Your task to perform on an android device: show emergency info Image 0: 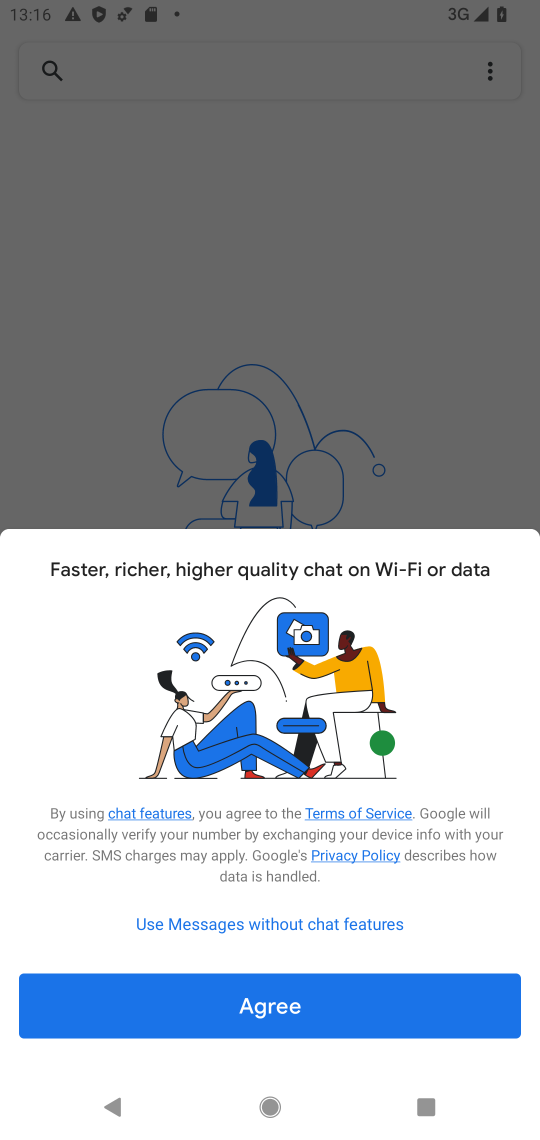
Step 0: drag from (282, 790) to (328, 6)
Your task to perform on an android device: show emergency info Image 1: 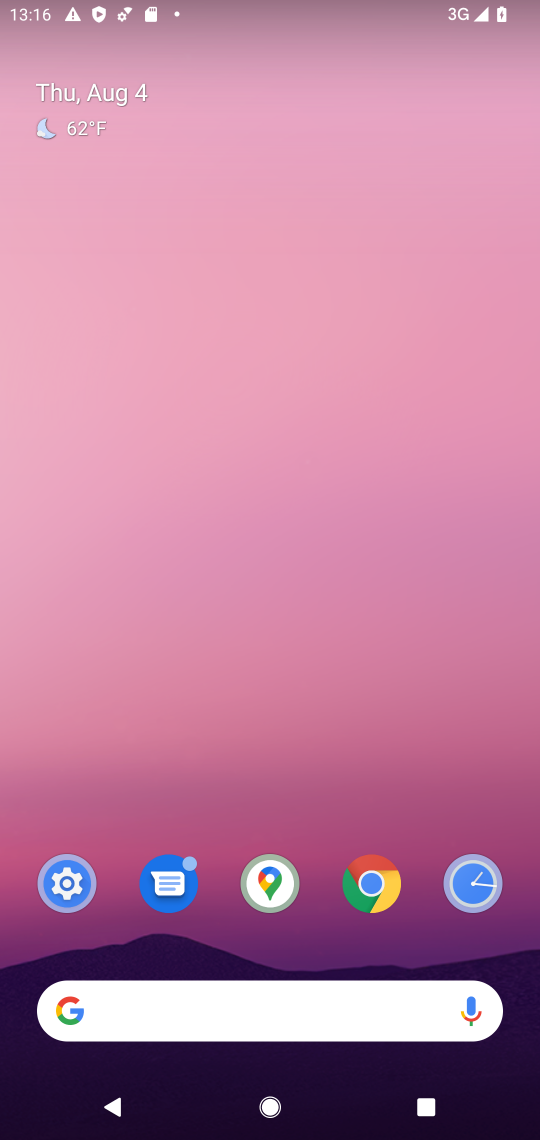
Step 1: click (74, 892)
Your task to perform on an android device: show emergency info Image 2: 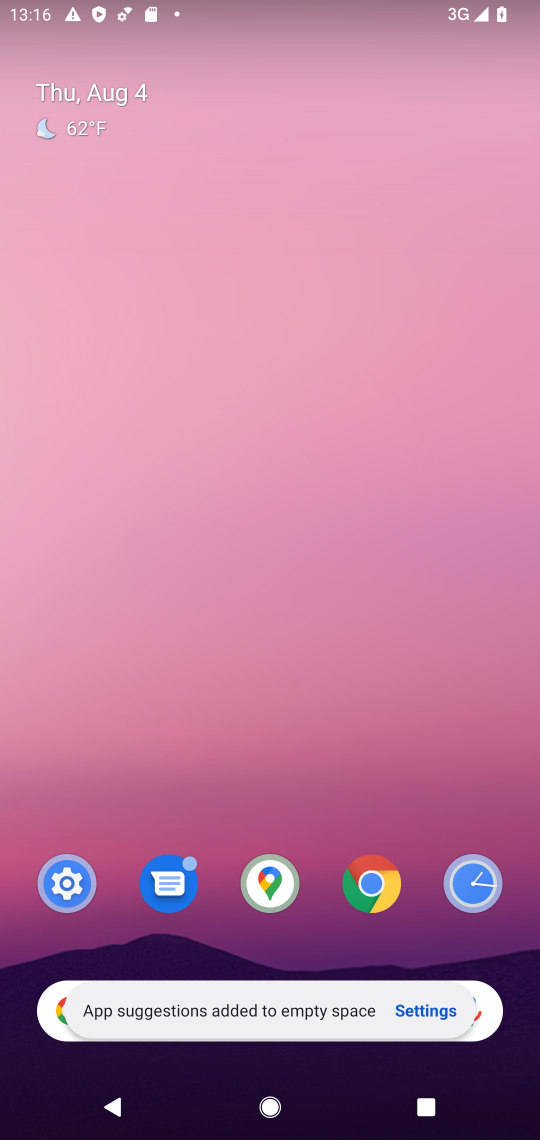
Step 2: click (49, 885)
Your task to perform on an android device: show emergency info Image 3: 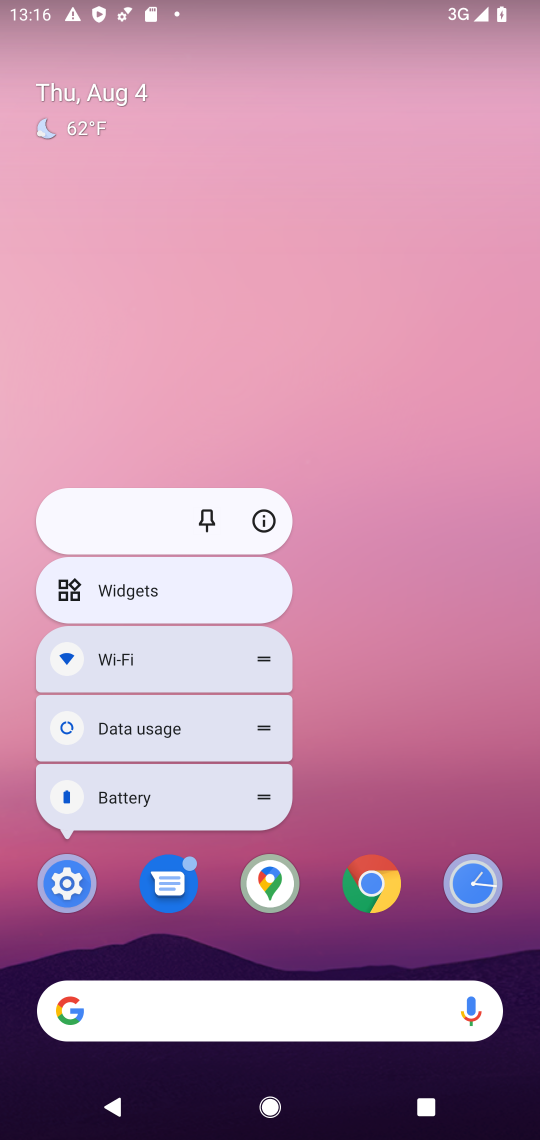
Step 3: click (257, 506)
Your task to perform on an android device: show emergency info Image 4: 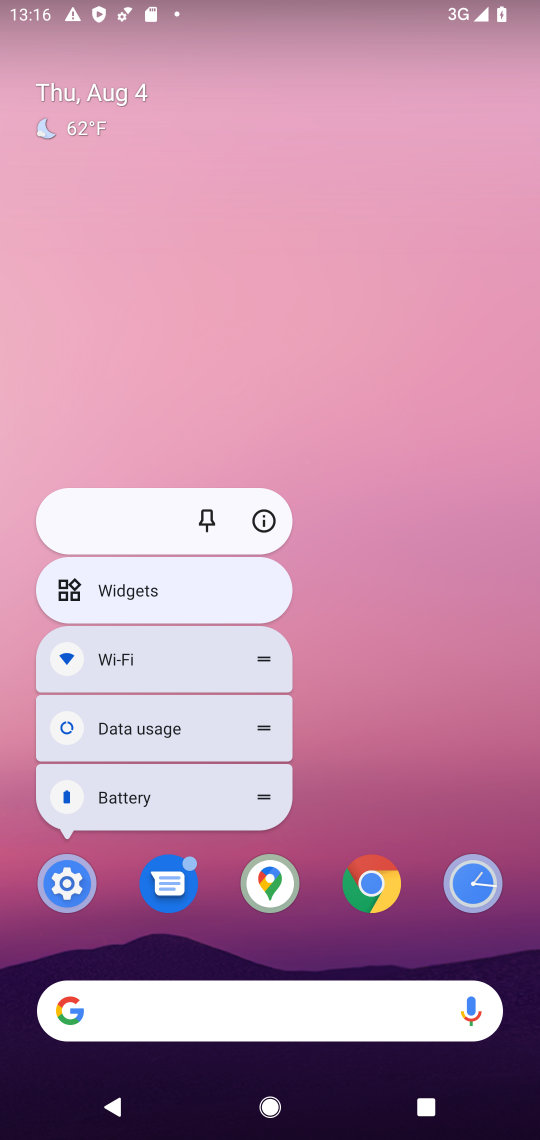
Step 4: click (259, 522)
Your task to perform on an android device: show emergency info Image 5: 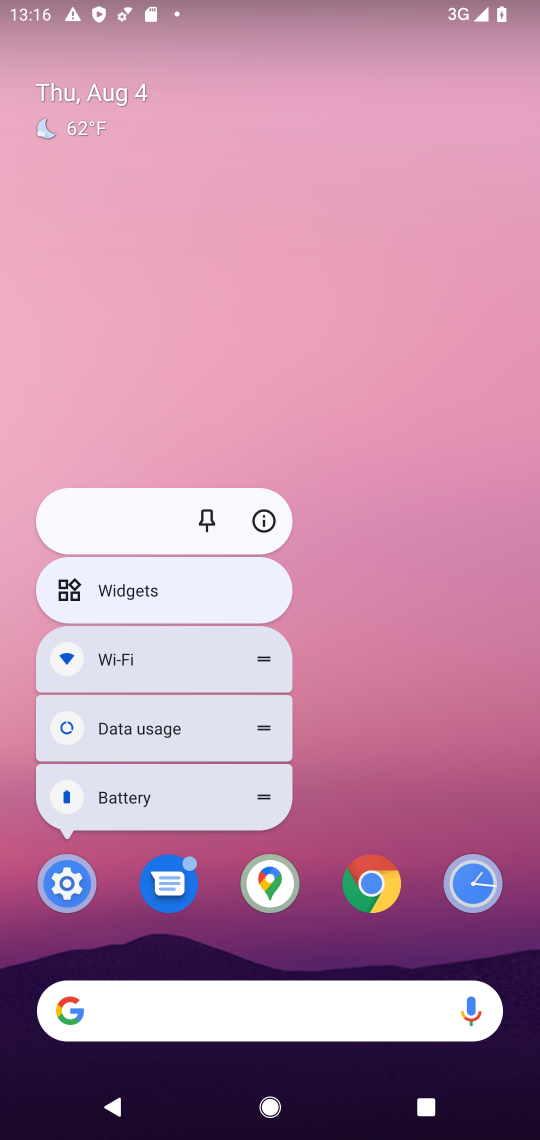
Step 5: click (270, 513)
Your task to perform on an android device: show emergency info Image 6: 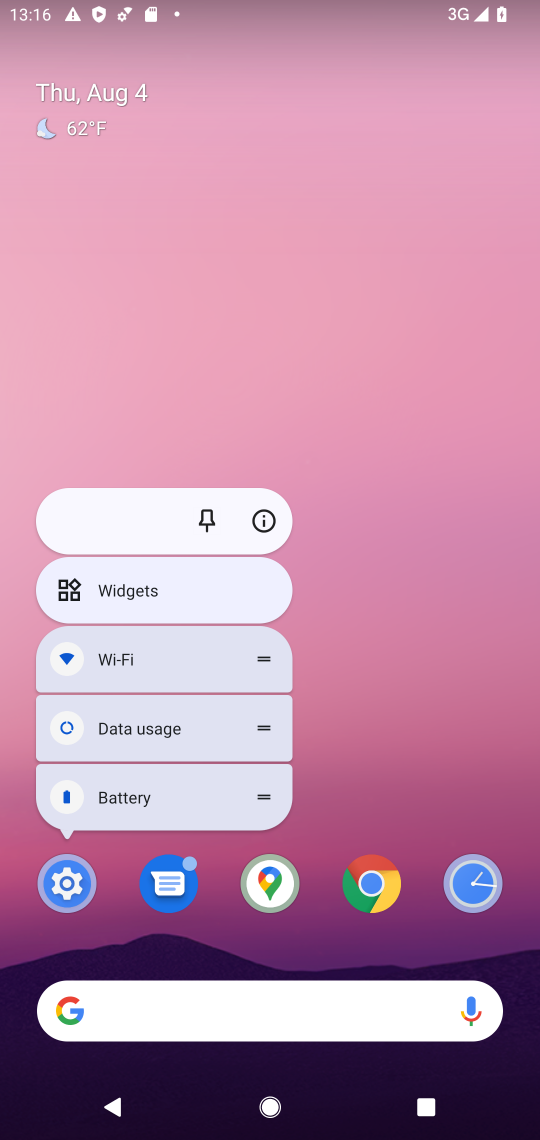
Step 6: click (262, 514)
Your task to perform on an android device: show emergency info Image 7: 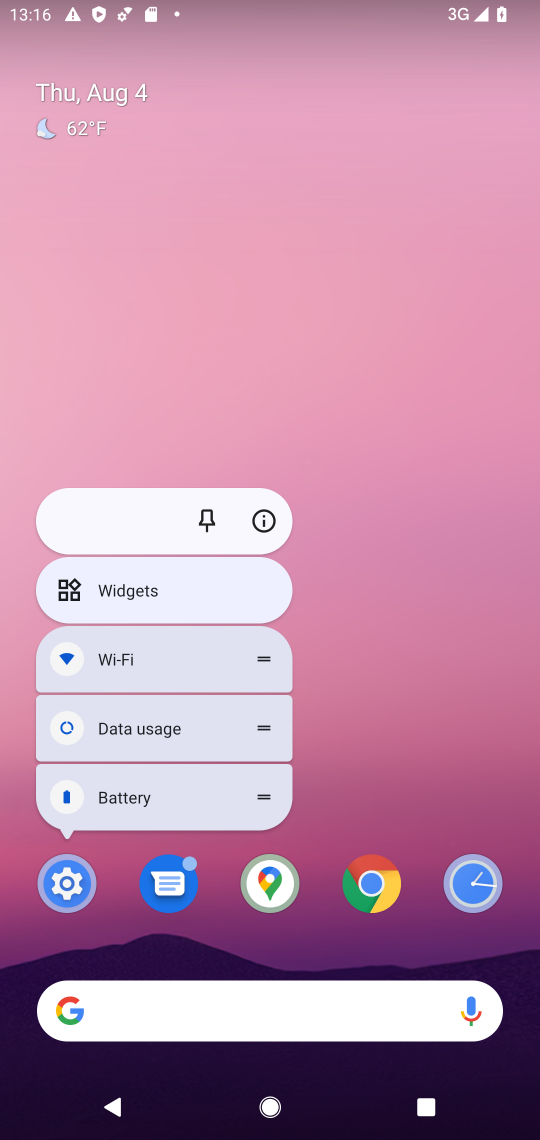
Step 7: click (271, 515)
Your task to perform on an android device: show emergency info Image 8: 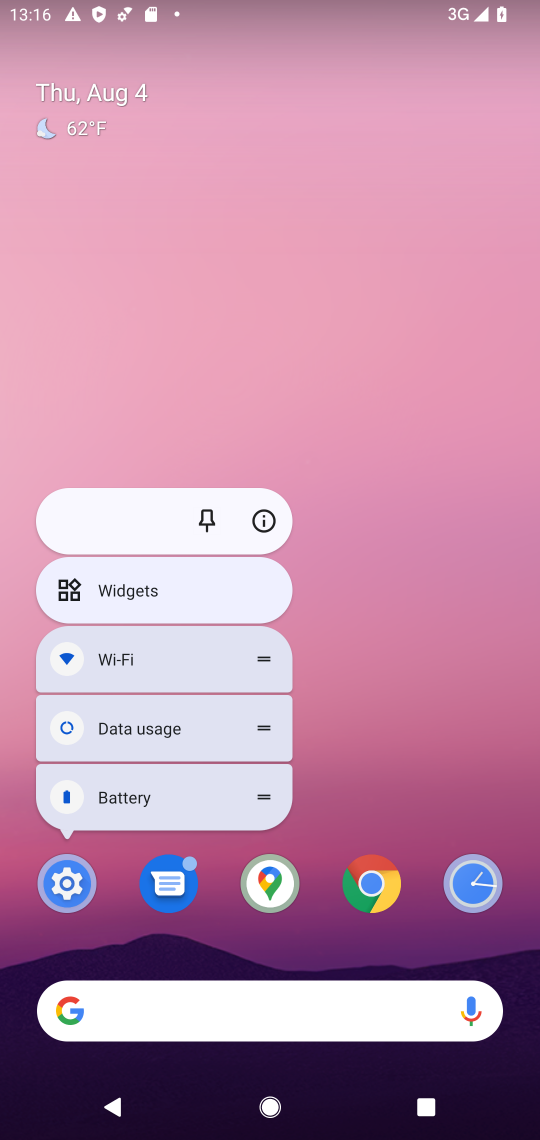
Step 8: click (261, 507)
Your task to perform on an android device: show emergency info Image 9: 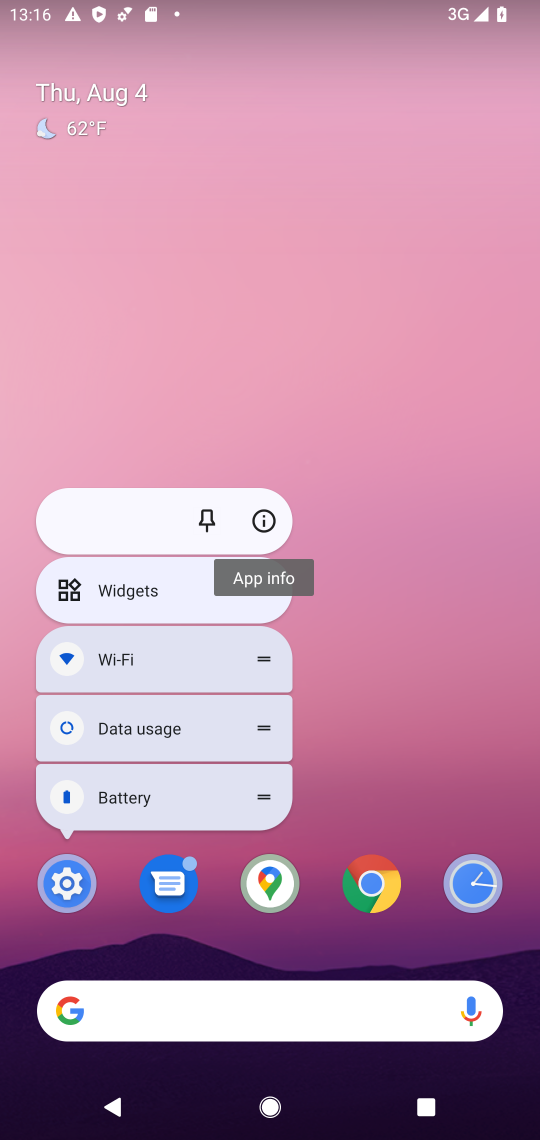
Step 9: click (261, 506)
Your task to perform on an android device: show emergency info Image 10: 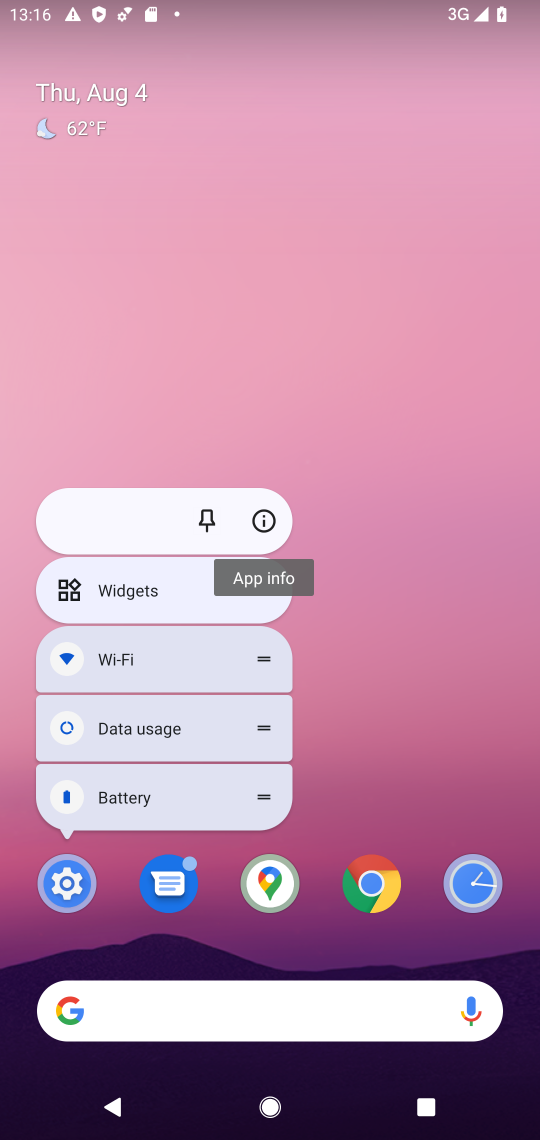
Step 10: click (261, 506)
Your task to perform on an android device: show emergency info Image 11: 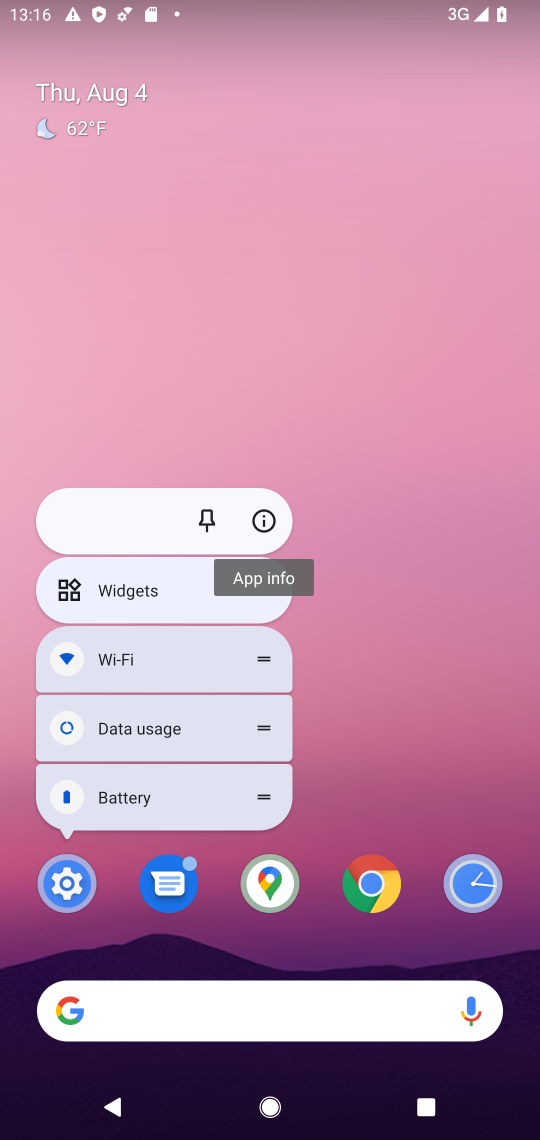
Step 11: click (62, 869)
Your task to perform on an android device: show emergency info Image 12: 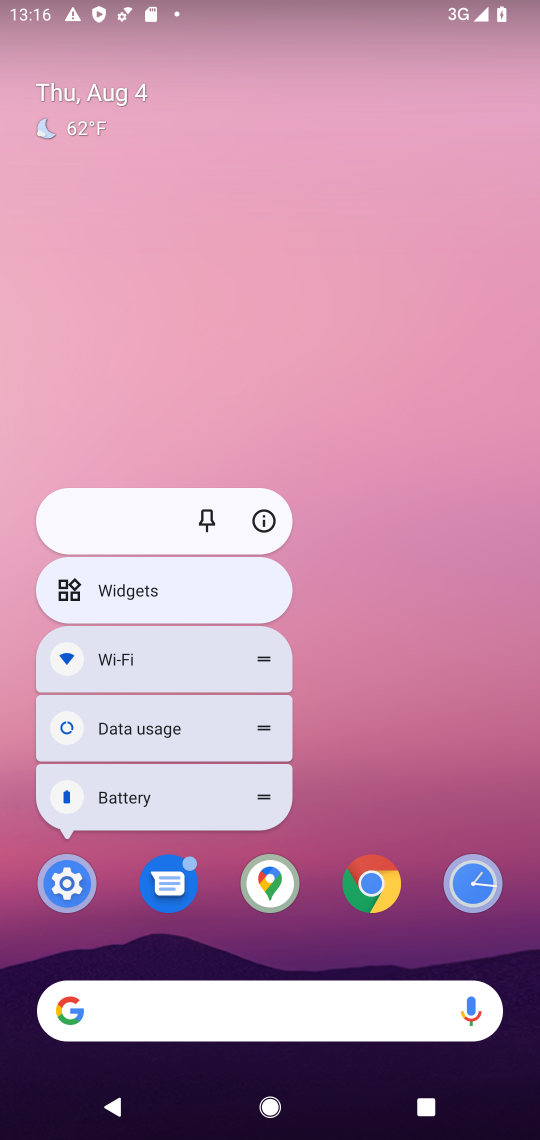
Step 12: click (62, 869)
Your task to perform on an android device: show emergency info Image 13: 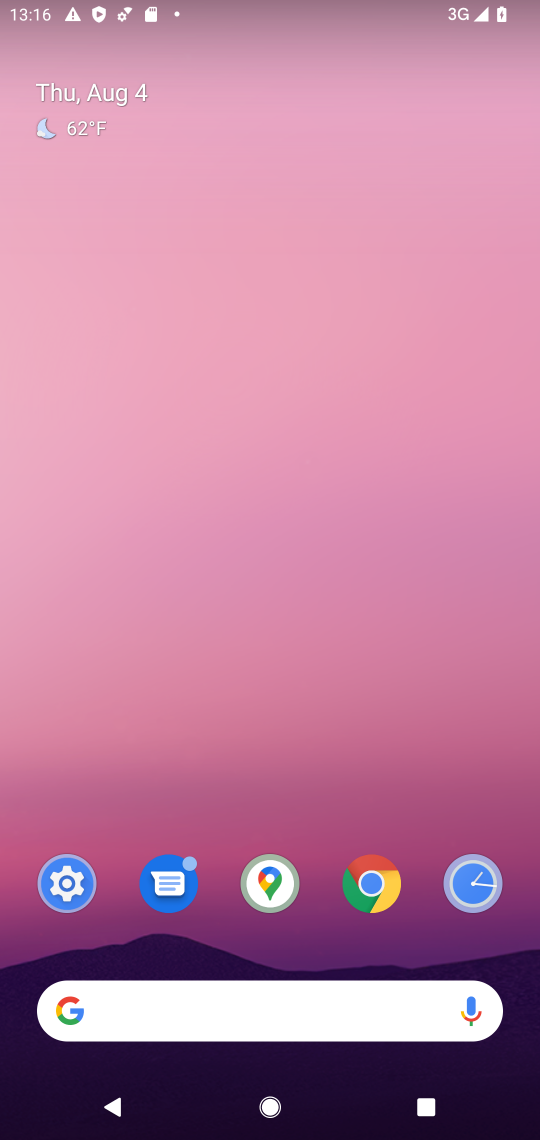
Step 13: click (62, 869)
Your task to perform on an android device: show emergency info Image 14: 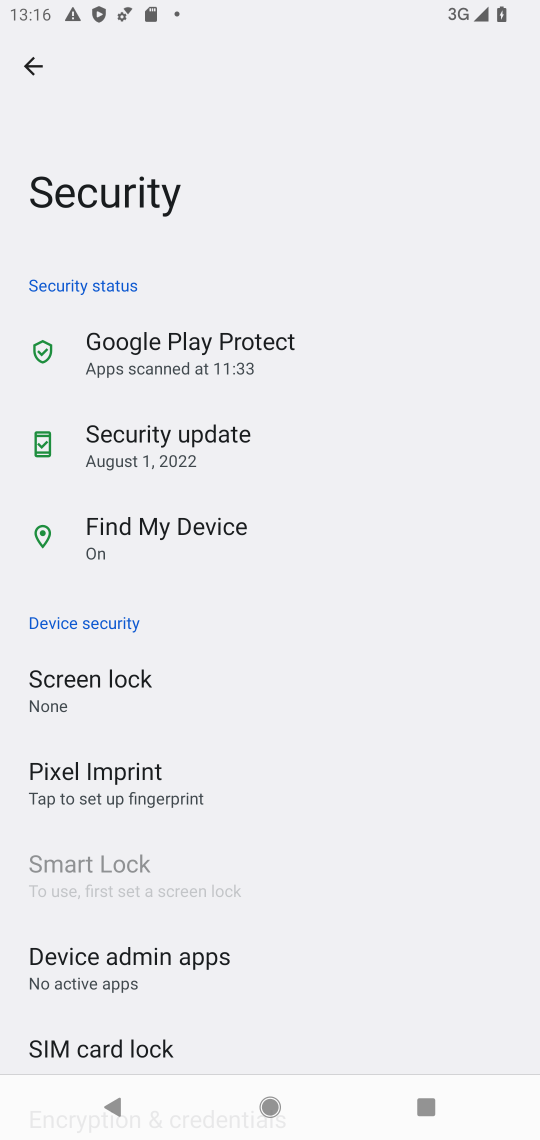
Step 14: press back button
Your task to perform on an android device: show emergency info Image 15: 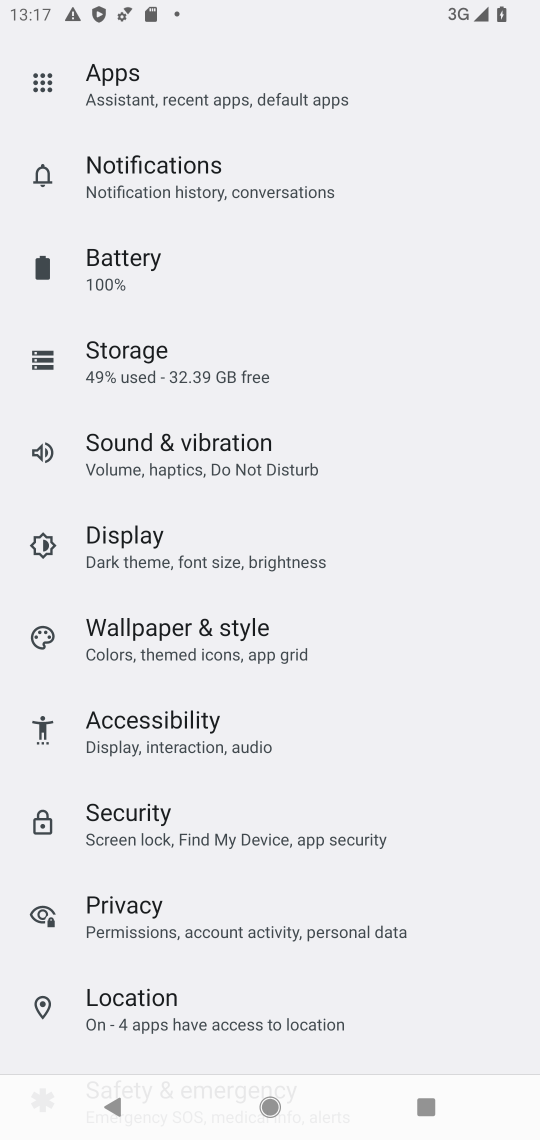
Step 15: drag from (173, 930) to (282, 248)
Your task to perform on an android device: show emergency info Image 16: 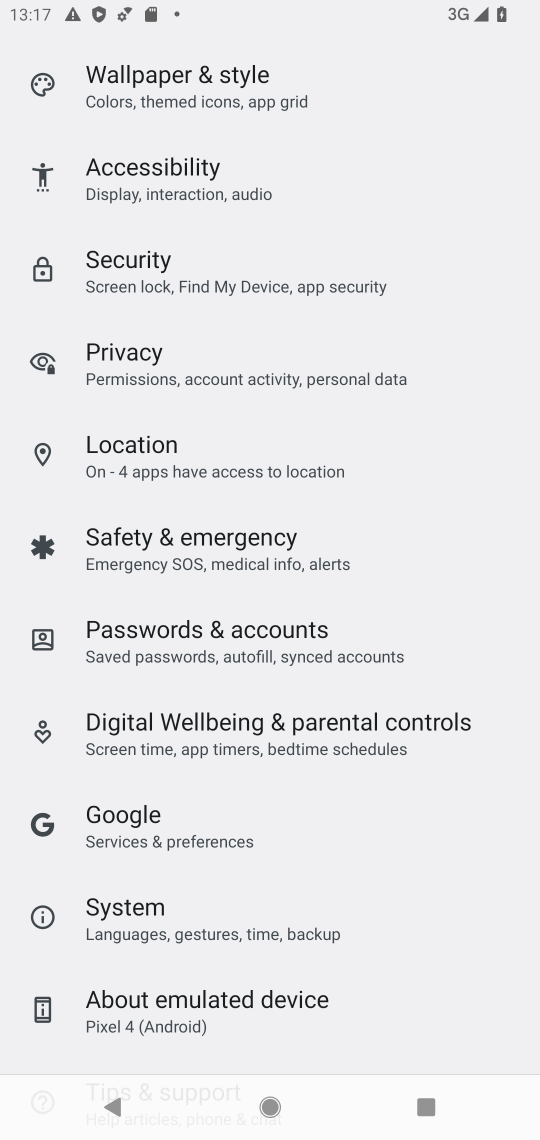
Step 16: drag from (265, 919) to (372, 231)
Your task to perform on an android device: show emergency info Image 17: 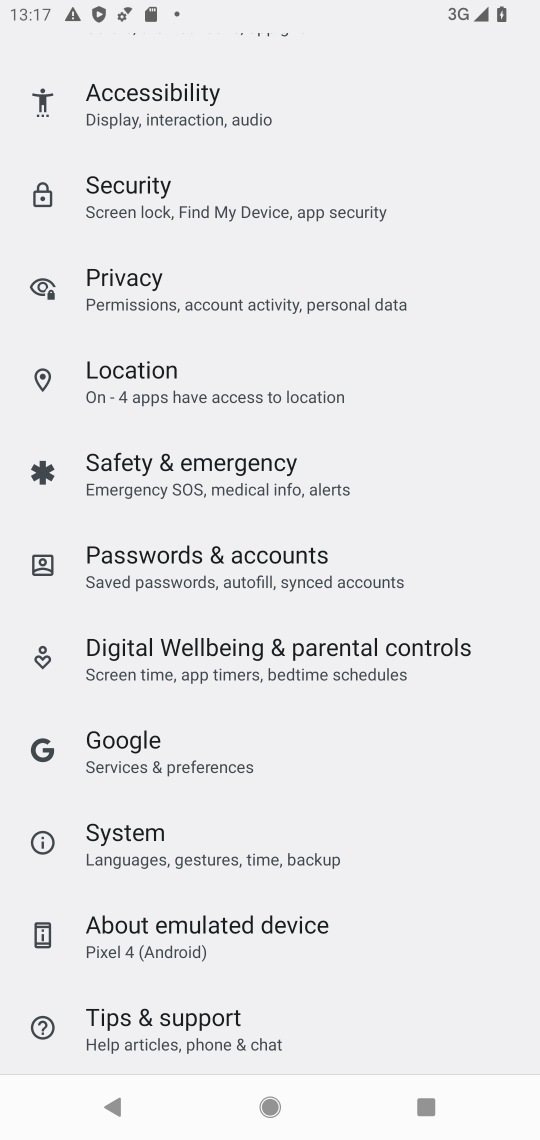
Step 17: drag from (203, 994) to (252, 522)
Your task to perform on an android device: show emergency info Image 18: 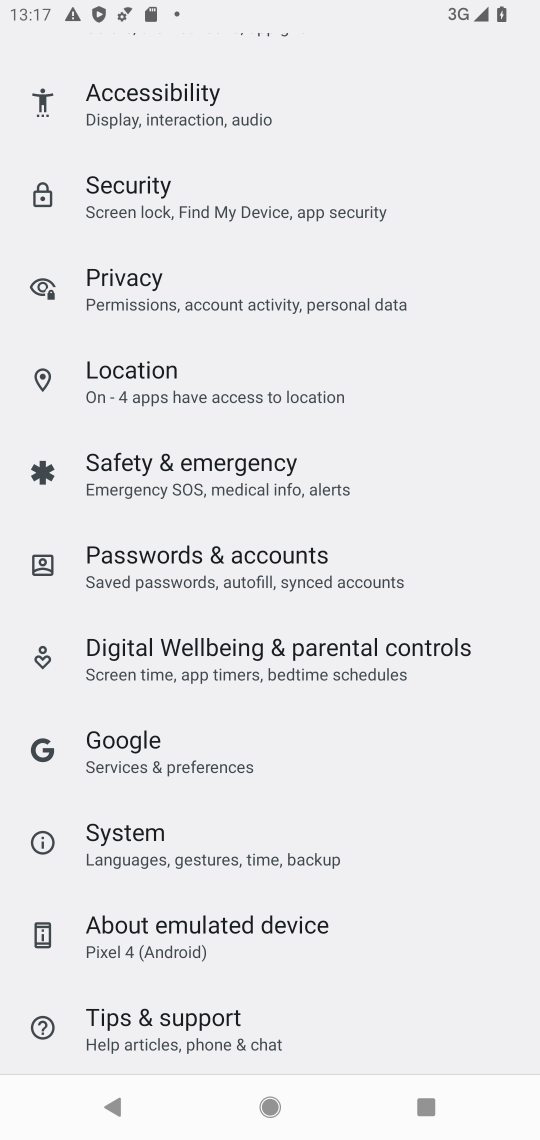
Step 18: click (302, 465)
Your task to perform on an android device: show emergency info Image 19: 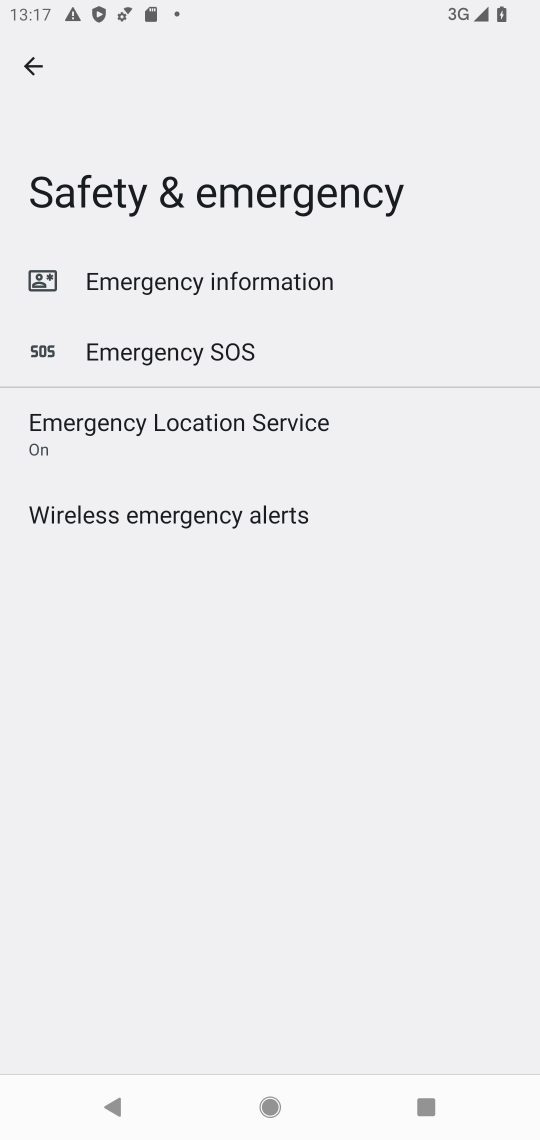
Step 19: task complete